Your task to perform on an android device: turn off picture-in-picture Image 0: 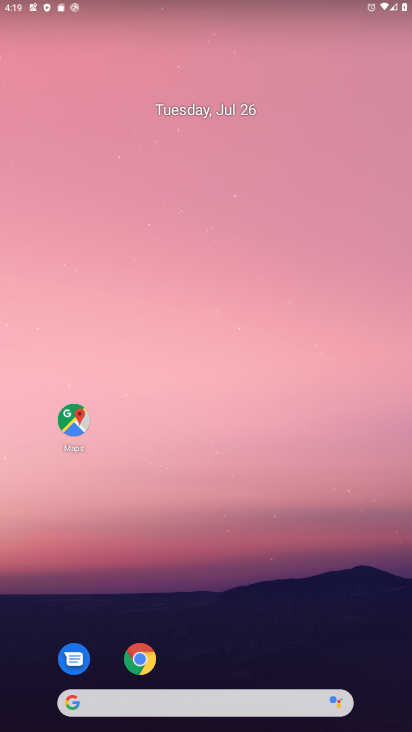
Step 0: press home button
Your task to perform on an android device: turn off picture-in-picture Image 1: 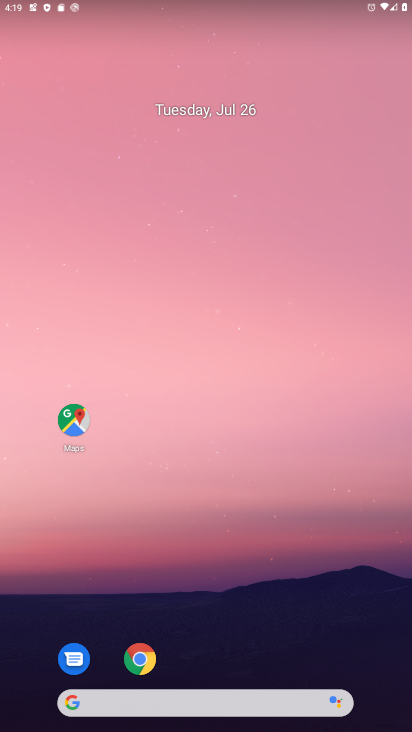
Step 1: click (140, 657)
Your task to perform on an android device: turn off picture-in-picture Image 2: 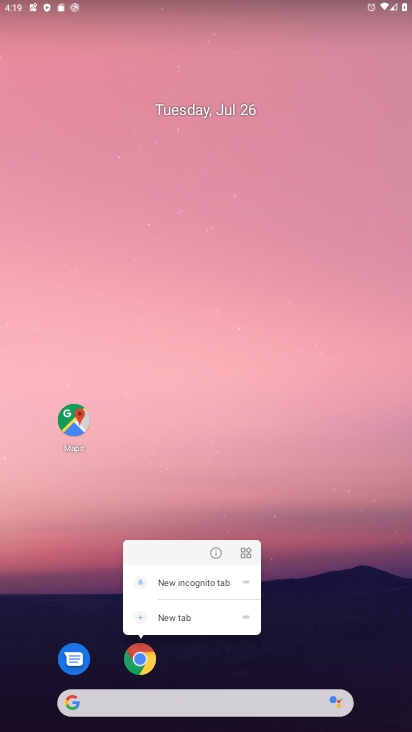
Step 2: click (217, 555)
Your task to perform on an android device: turn off picture-in-picture Image 3: 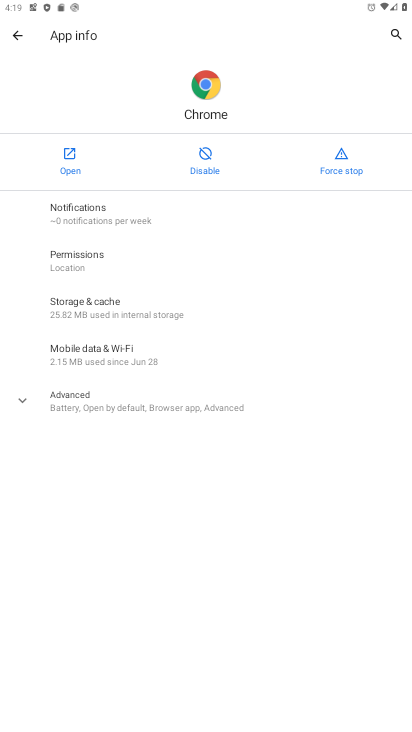
Step 3: click (71, 406)
Your task to perform on an android device: turn off picture-in-picture Image 4: 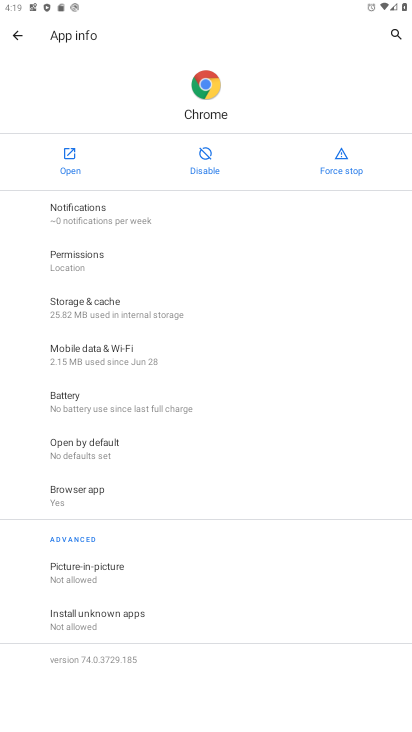
Step 4: click (108, 571)
Your task to perform on an android device: turn off picture-in-picture Image 5: 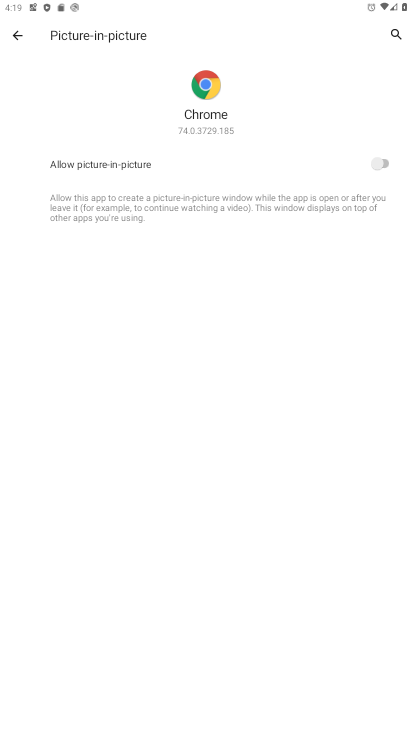
Step 5: task complete